Your task to perform on an android device: Go to notification settings Image 0: 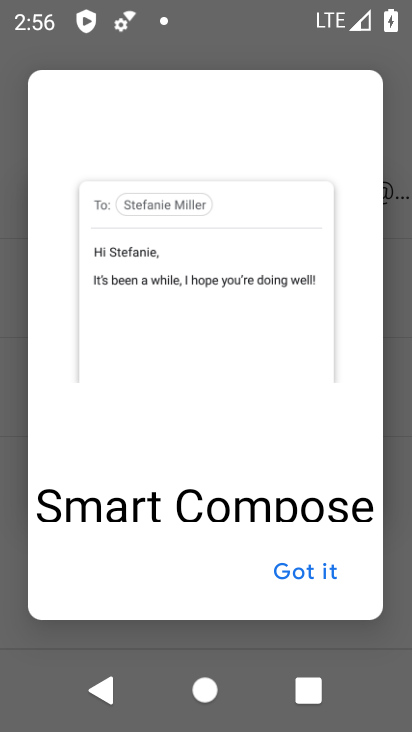
Step 0: press home button
Your task to perform on an android device: Go to notification settings Image 1: 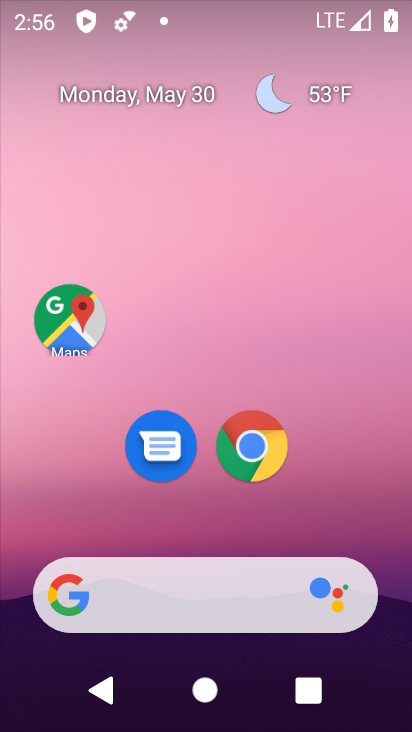
Step 1: drag from (335, 517) to (213, 87)
Your task to perform on an android device: Go to notification settings Image 2: 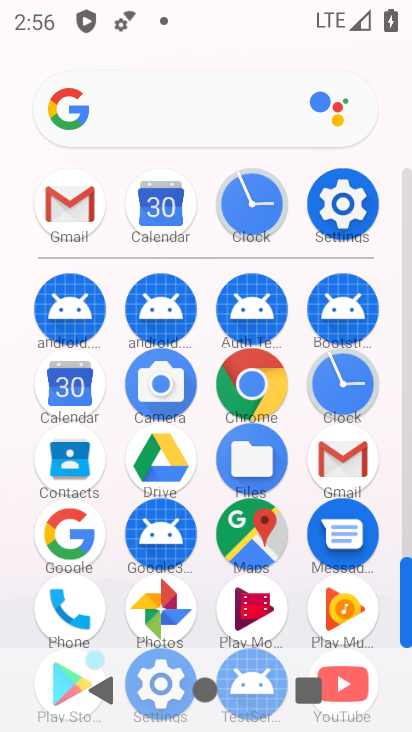
Step 2: click (343, 202)
Your task to perform on an android device: Go to notification settings Image 3: 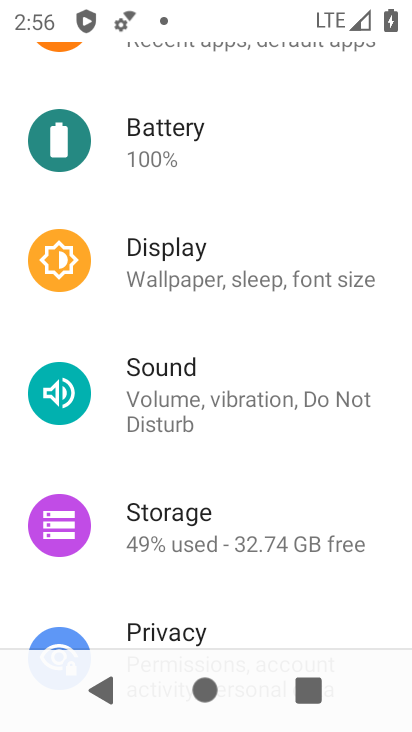
Step 3: drag from (223, 472) to (271, 365)
Your task to perform on an android device: Go to notification settings Image 4: 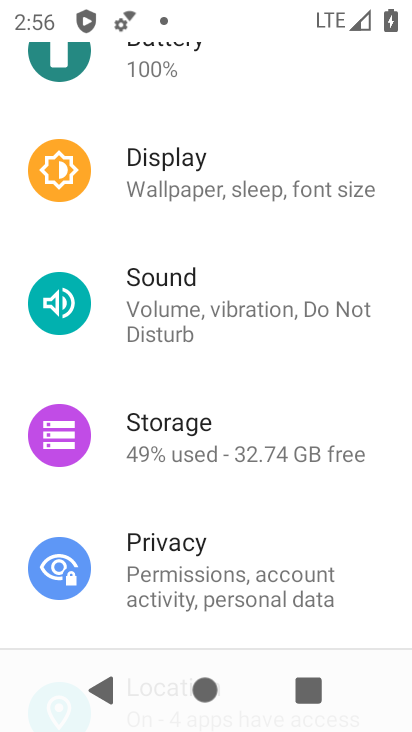
Step 4: drag from (264, 261) to (276, 404)
Your task to perform on an android device: Go to notification settings Image 5: 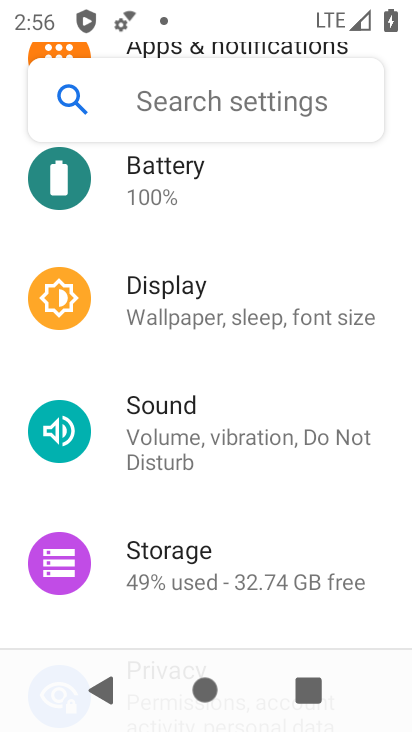
Step 5: drag from (254, 255) to (267, 394)
Your task to perform on an android device: Go to notification settings Image 6: 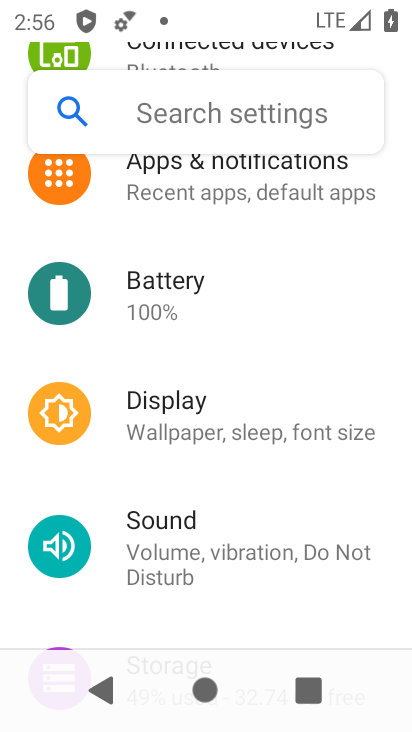
Step 6: click (260, 404)
Your task to perform on an android device: Go to notification settings Image 7: 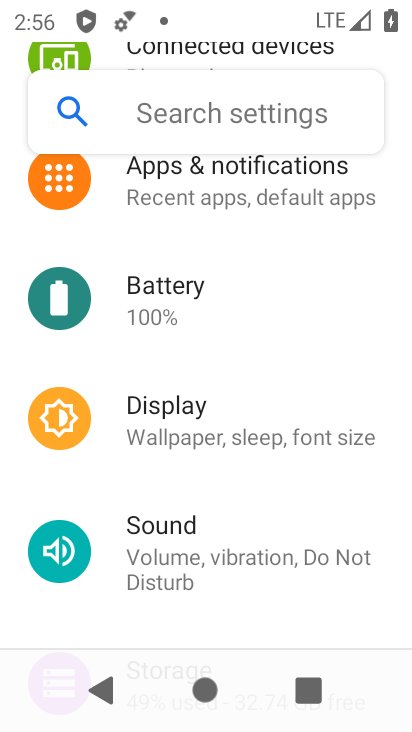
Step 7: click (240, 172)
Your task to perform on an android device: Go to notification settings Image 8: 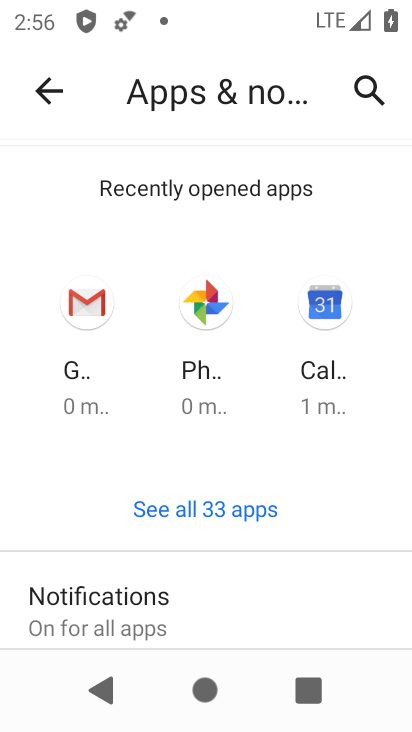
Step 8: click (106, 589)
Your task to perform on an android device: Go to notification settings Image 9: 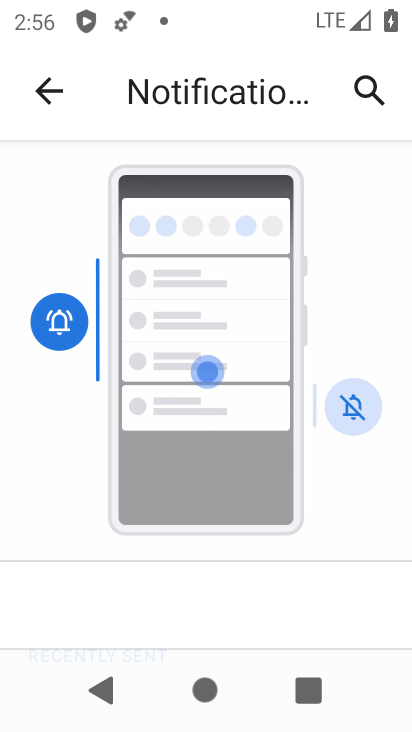
Step 9: task complete